Your task to perform on an android device: open app "Google Maps" Image 0: 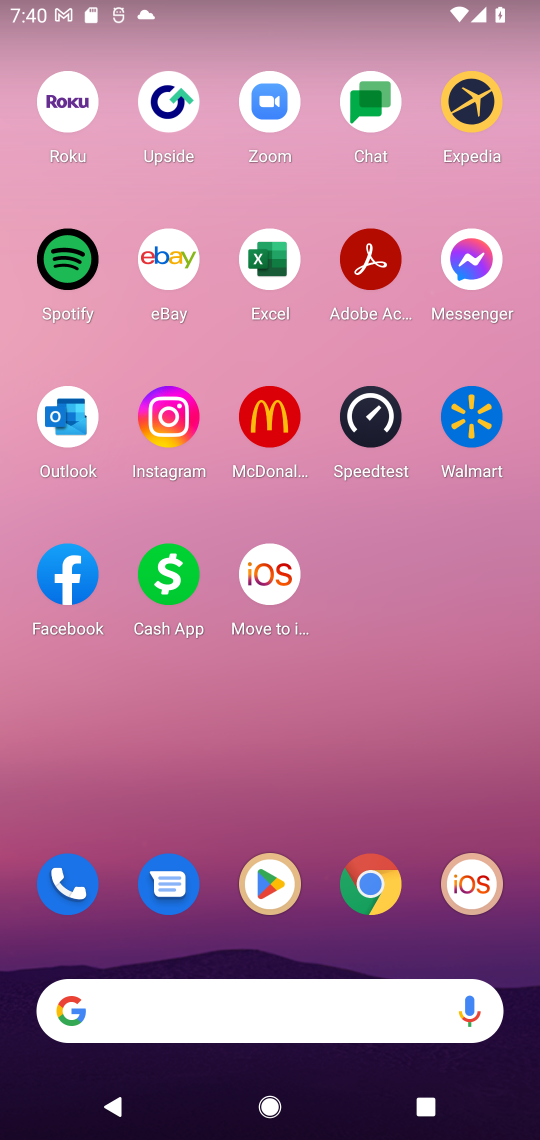
Step 0: drag from (223, 1013) to (338, 155)
Your task to perform on an android device: open app "Google Maps" Image 1: 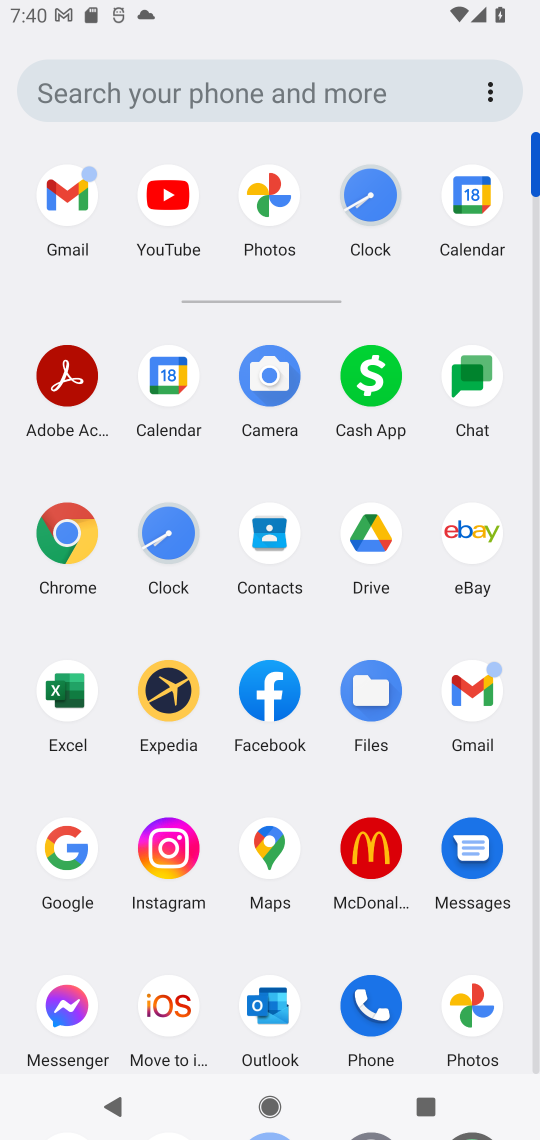
Step 1: click (273, 846)
Your task to perform on an android device: open app "Google Maps" Image 2: 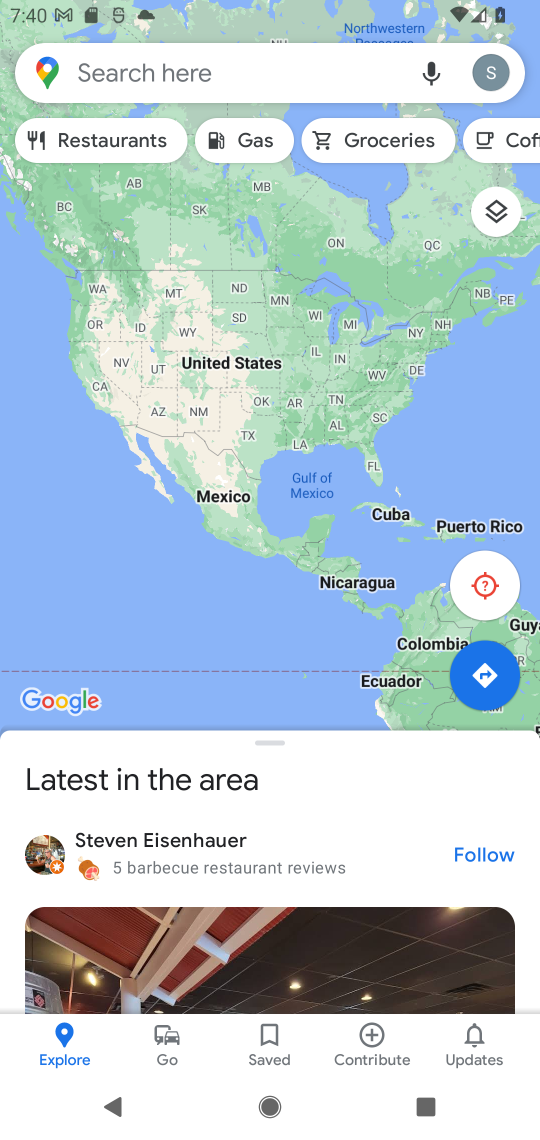
Step 2: task complete